Your task to perform on an android device: toggle notification dots Image 0: 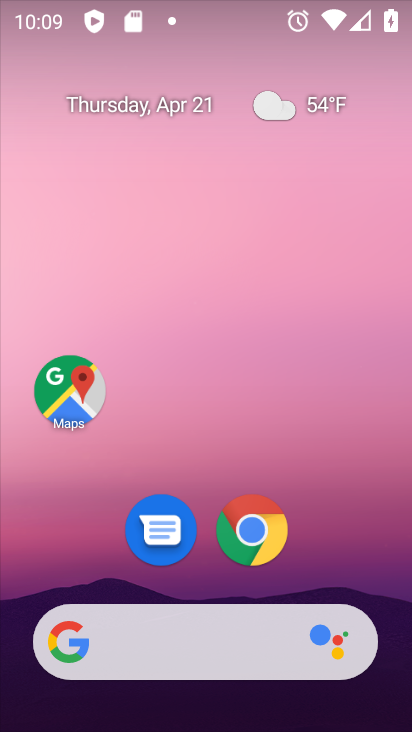
Step 0: drag from (192, 569) to (262, 176)
Your task to perform on an android device: toggle notification dots Image 1: 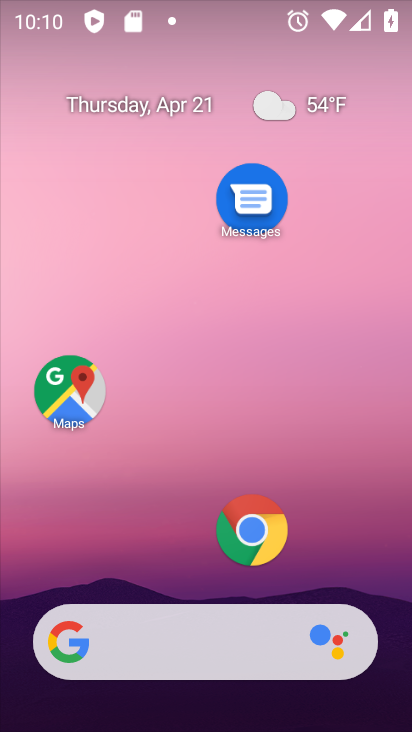
Step 1: drag from (166, 545) to (219, 99)
Your task to perform on an android device: toggle notification dots Image 2: 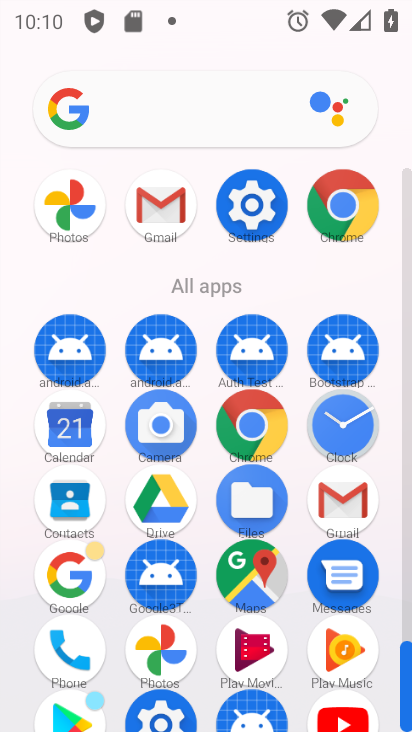
Step 2: drag from (168, 648) to (241, 364)
Your task to perform on an android device: toggle notification dots Image 3: 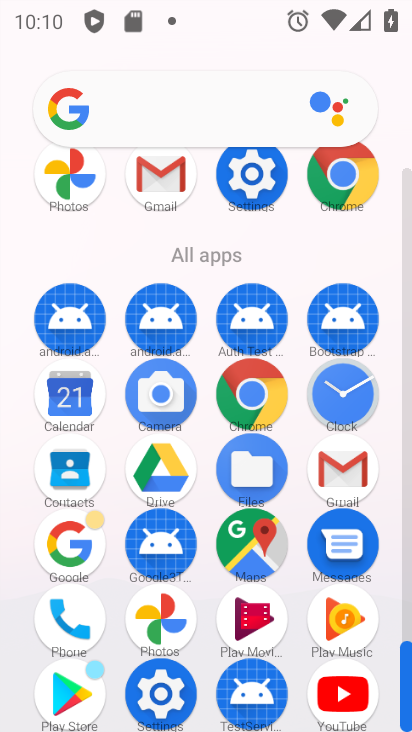
Step 3: click (156, 693)
Your task to perform on an android device: toggle notification dots Image 4: 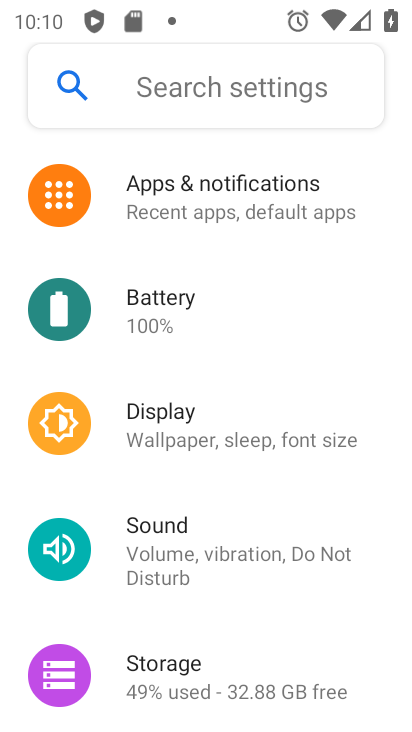
Step 4: click (272, 212)
Your task to perform on an android device: toggle notification dots Image 5: 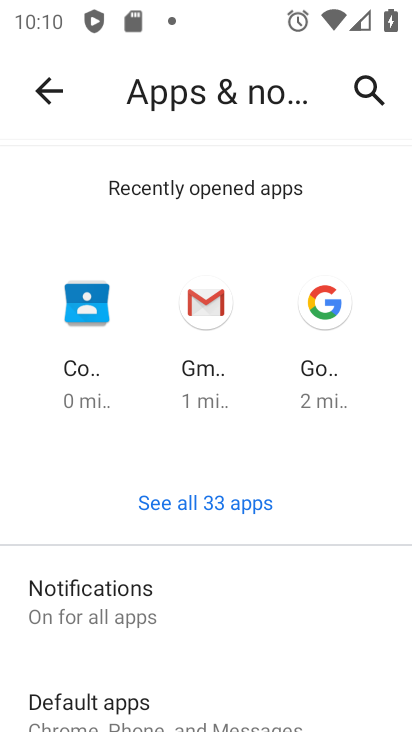
Step 5: drag from (243, 646) to (345, 230)
Your task to perform on an android device: toggle notification dots Image 6: 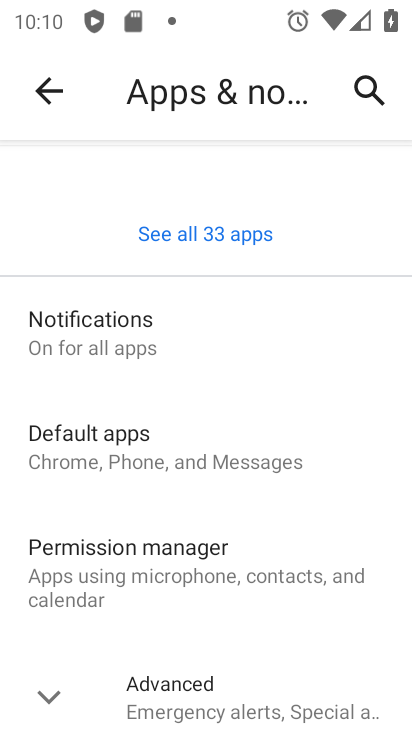
Step 6: drag from (188, 699) to (319, 338)
Your task to perform on an android device: toggle notification dots Image 7: 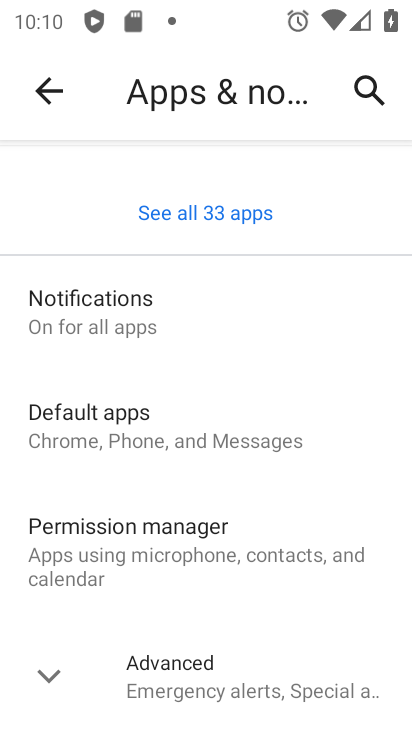
Step 7: click (221, 309)
Your task to perform on an android device: toggle notification dots Image 8: 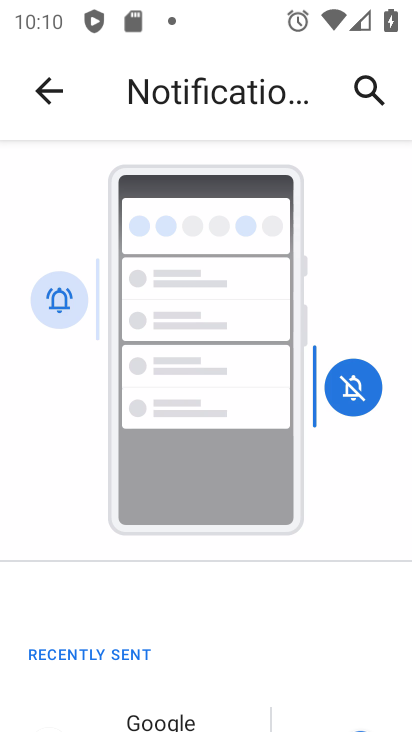
Step 8: drag from (187, 632) to (286, 219)
Your task to perform on an android device: toggle notification dots Image 9: 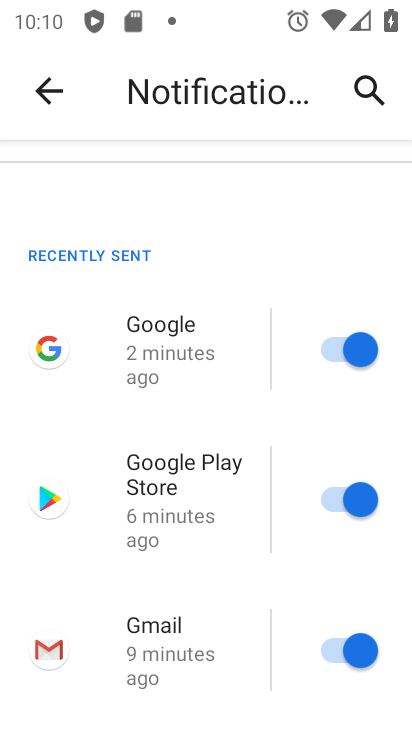
Step 9: drag from (189, 674) to (320, 285)
Your task to perform on an android device: toggle notification dots Image 10: 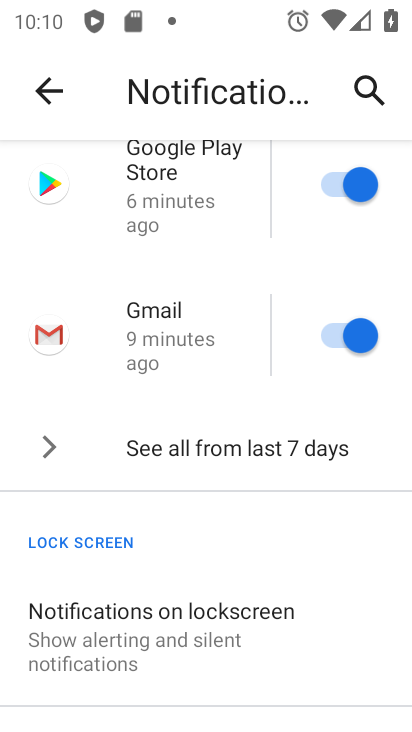
Step 10: drag from (180, 653) to (300, 210)
Your task to perform on an android device: toggle notification dots Image 11: 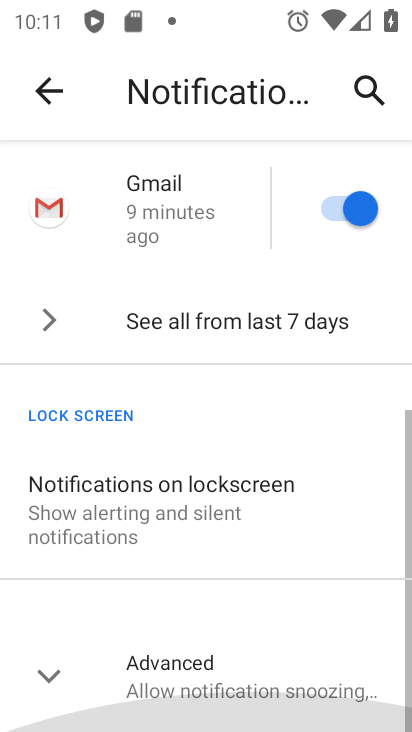
Step 11: click (230, 676)
Your task to perform on an android device: toggle notification dots Image 12: 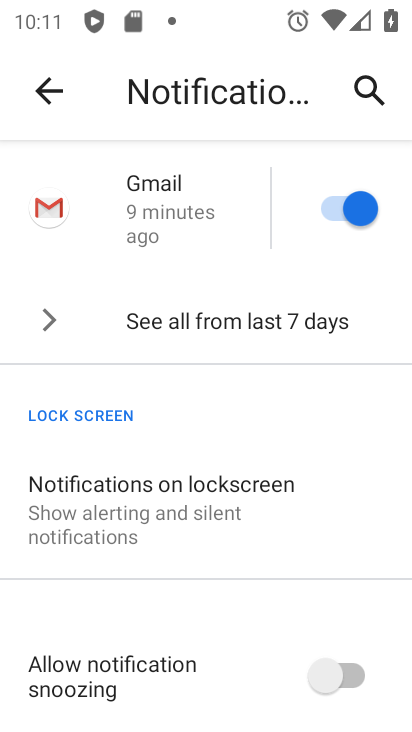
Step 12: drag from (203, 717) to (330, 352)
Your task to perform on an android device: toggle notification dots Image 13: 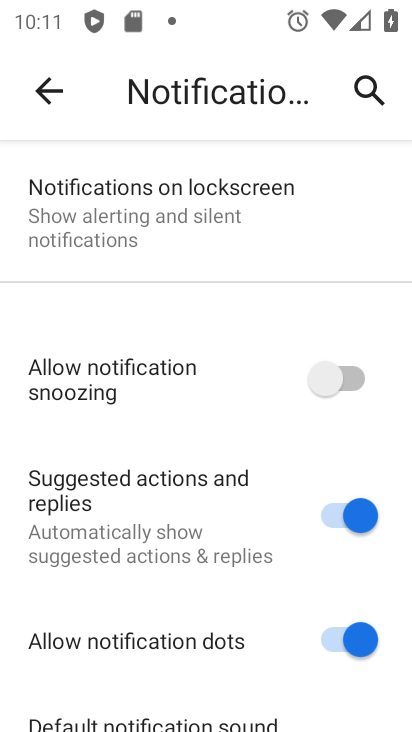
Step 13: click (343, 645)
Your task to perform on an android device: toggle notification dots Image 14: 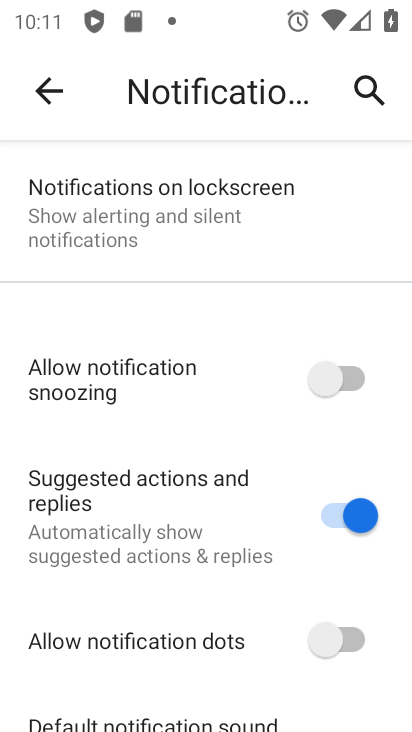
Step 14: task complete